Your task to perform on an android device: turn smart compose on in the gmail app Image 0: 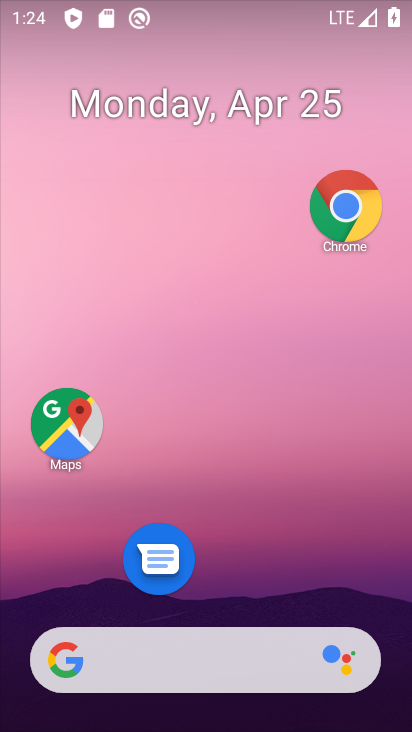
Step 0: drag from (240, 603) to (309, 85)
Your task to perform on an android device: turn smart compose on in the gmail app Image 1: 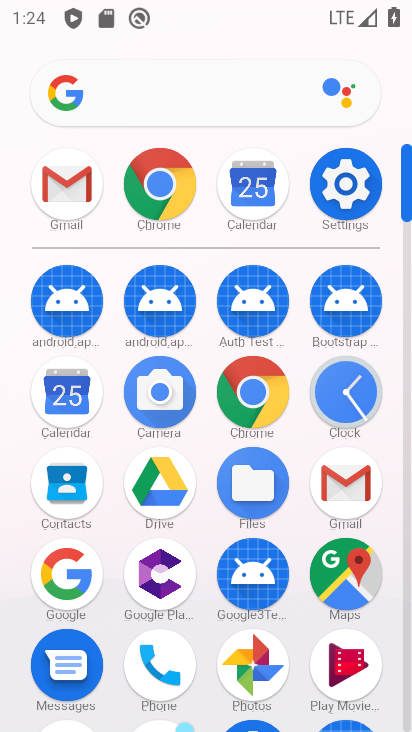
Step 1: click (347, 483)
Your task to perform on an android device: turn smart compose on in the gmail app Image 2: 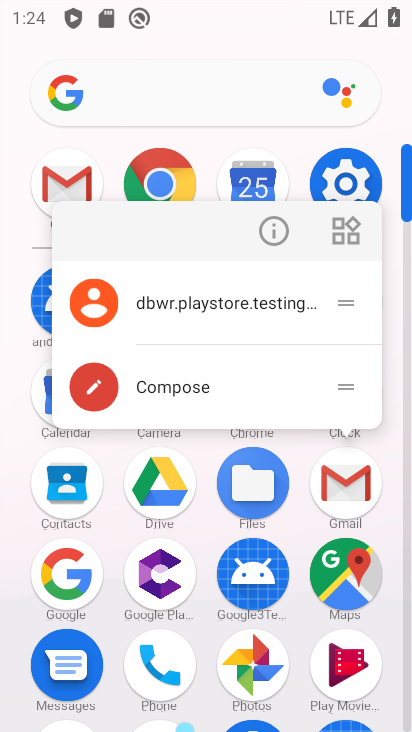
Step 2: click (349, 484)
Your task to perform on an android device: turn smart compose on in the gmail app Image 3: 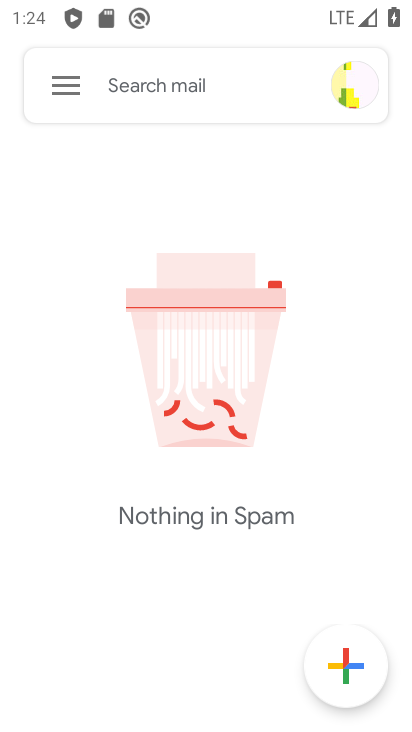
Step 3: click (61, 83)
Your task to perform on an android device: turn smart compose on in the gmail app Image 4: 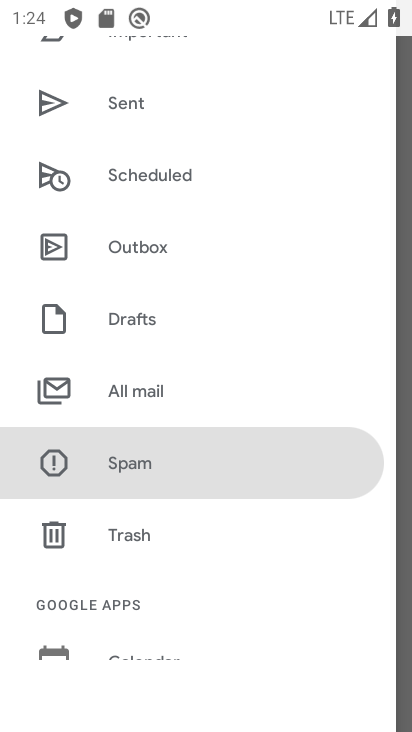
Step 4: drag from (175, 610) to (298, 36)
Your task to perform on an android device: turn smart compose on in the gmail app Image 5: 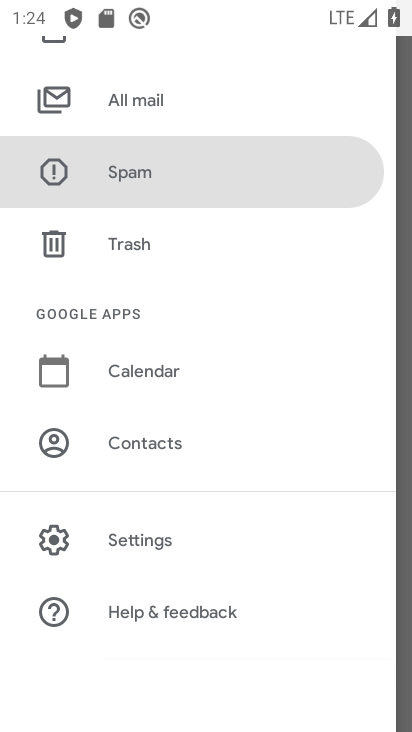
Step 5: click (157, 535)
Your task to perform on an android device: turn smart compose on in the gmail app Image 6: 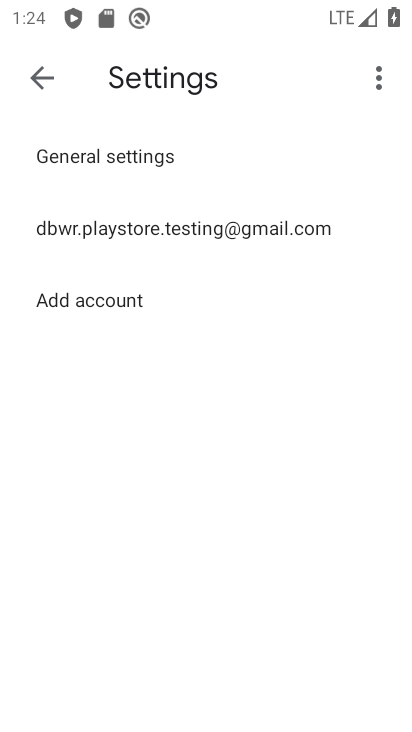
Step 6: click (128, 233)
Your task to perform on an android device: turn smart compose on in the gmail app Image 7: 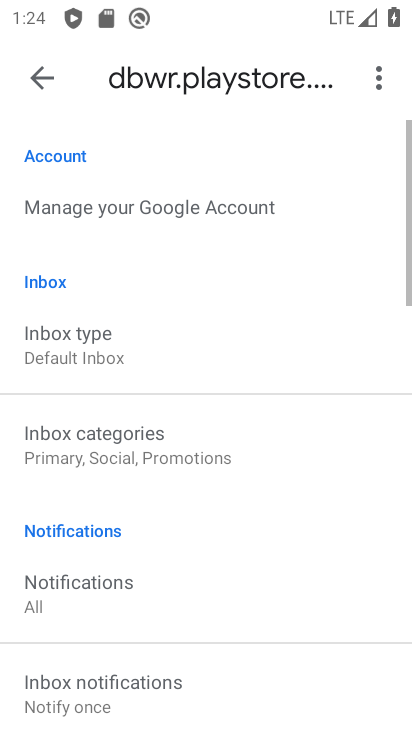
Step 7: task complete